Your task to perform on an android device: change timer sound Image 0: 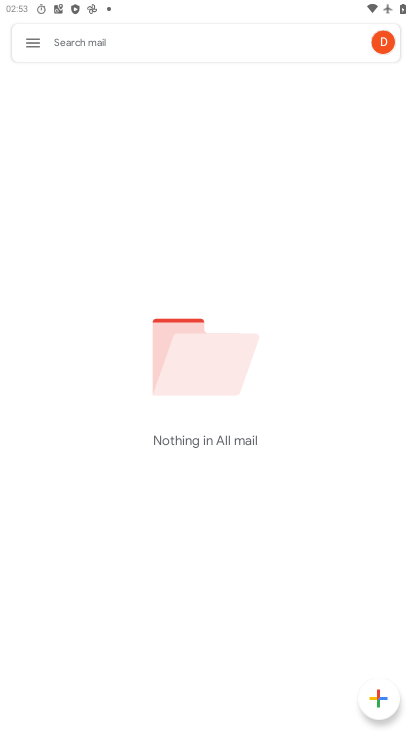
Step 0: press home button
Your task to perform on an android device: change timer sound Image 1: 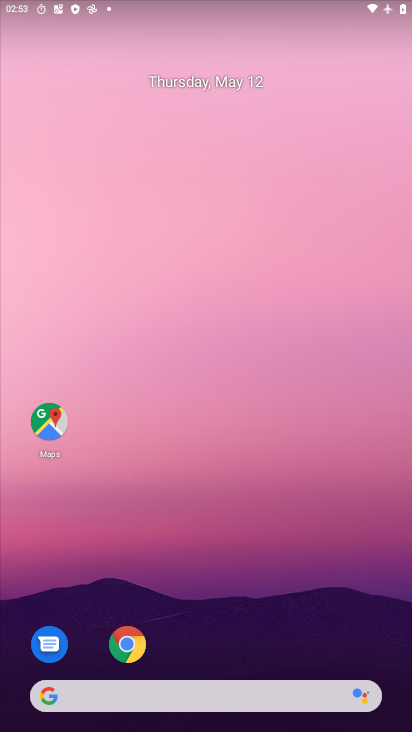
Step 1: drag from (244, 478) to (222, 97)
Your task to perform on an android device: change timer sound Image 2: 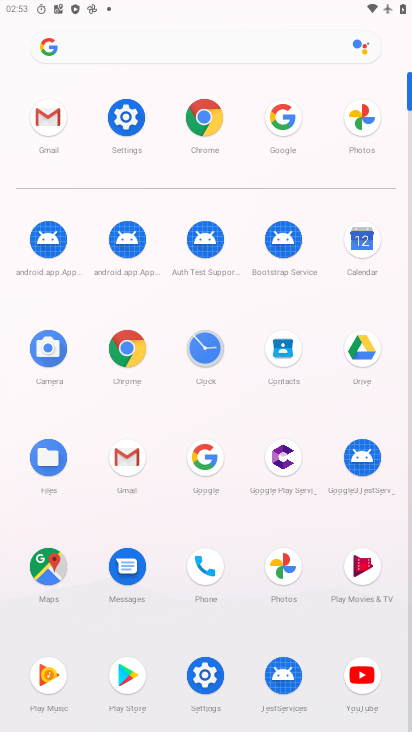
Step 2: click (130, 123)
Your task to perform on an android device: change timer sound Image 3: 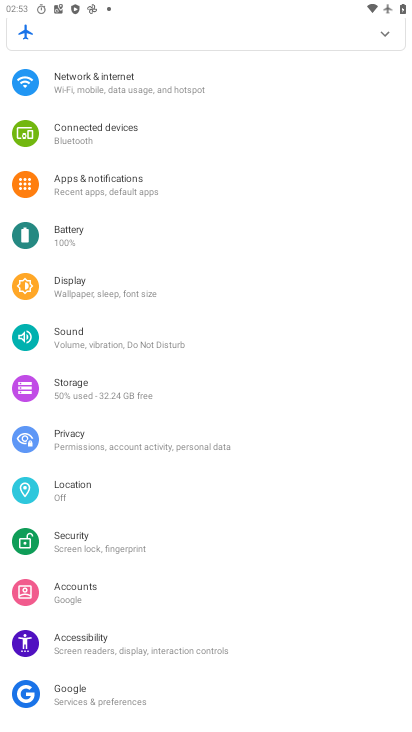
Step 3: press home button
Your task to perform on an android device: change timer sound Image 4: 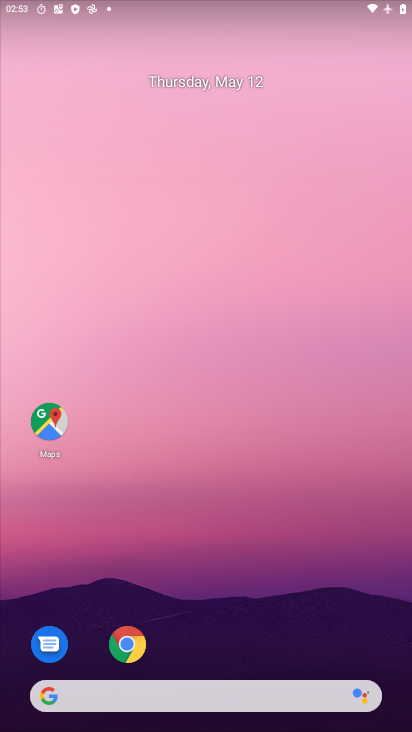
Step 4: drag from (282, 324) to (273, 136)
Your task to perform on an android device: change timer sound Image 5: 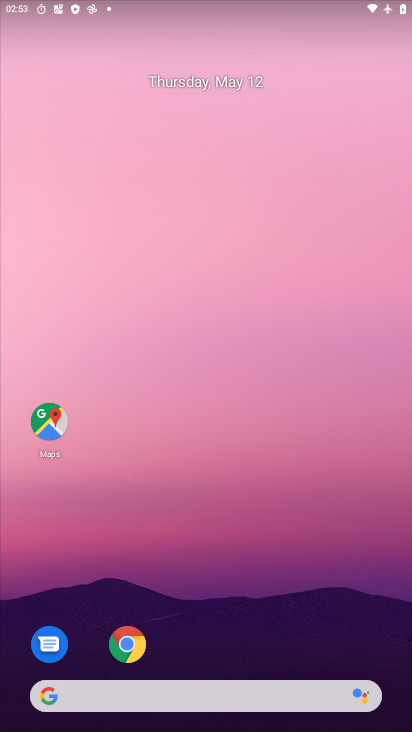
Step 5: drag from (179, 488) to (167, 58)
Your task to perform on an android device: change timer sound Image 6: 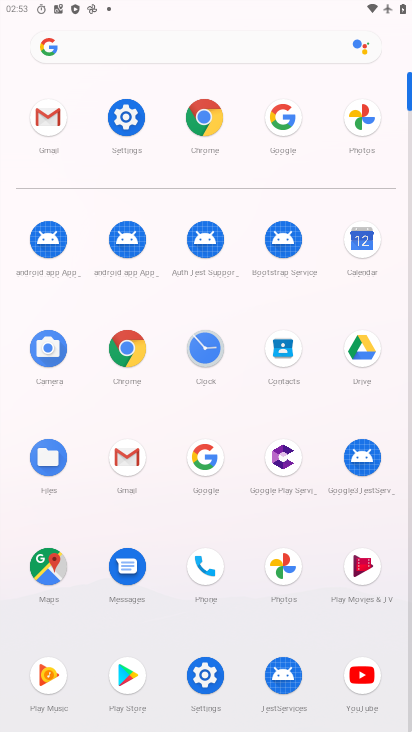
Step 6: click (206, 350)
Your task to perform on an android device: change timer sound Image 7: 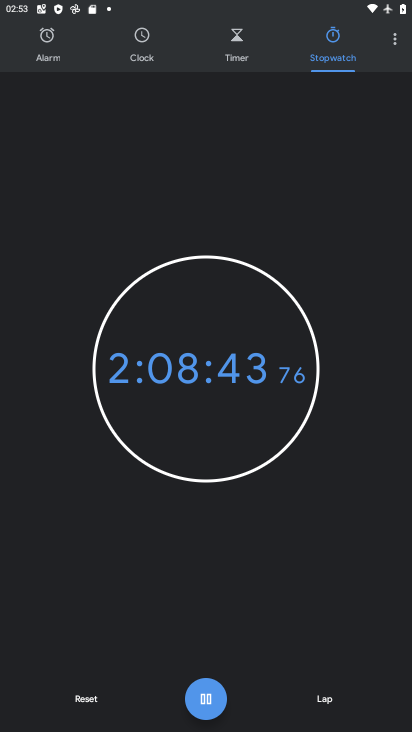
Step 7: click (391, 36)
Your task to perform on an android device: change timer sound Image 8: 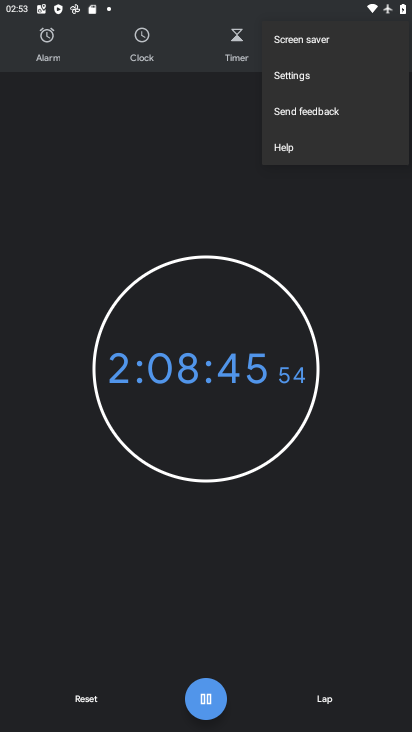
Step 8: click (332, 80)
Your task to perform on an android device: change timer sound Image 9: 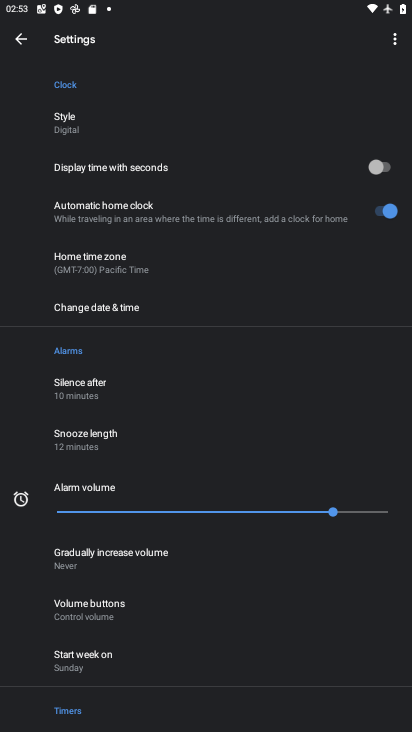
Step 9: drag from (195, 598) to (226, 267)
Your task to perform on an android device: change timer sound Image 10: 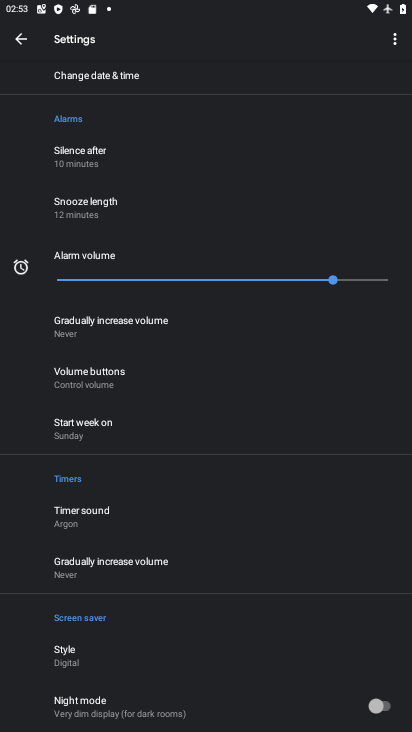
Step 10: click (120, 510)
Your task to perform on an android device: change timer sound Image 11: 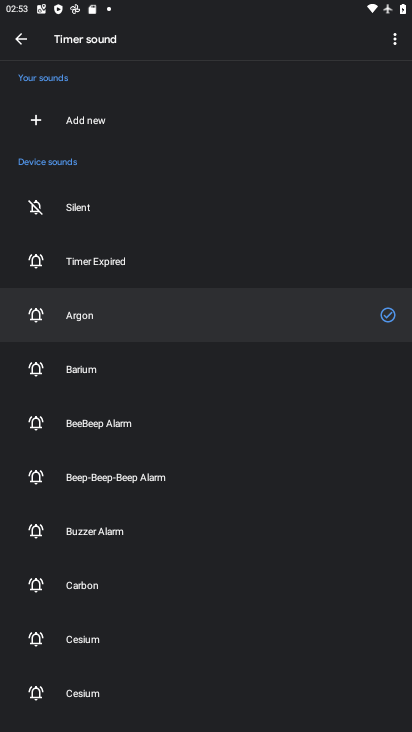
Step 11: click (249, 369)
Your task to perform on an android device: change timer sound Image 12: 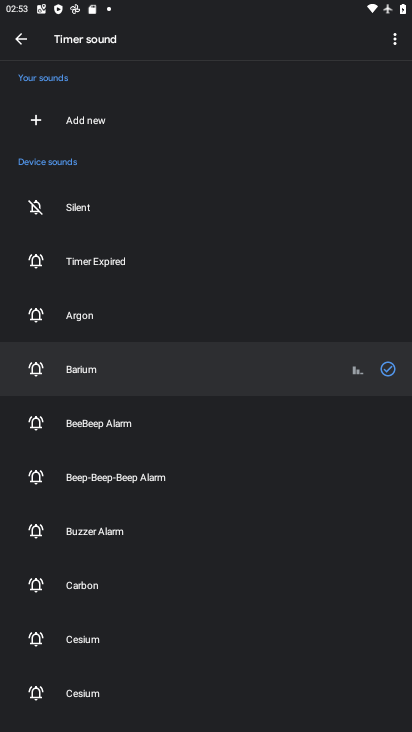
Step 12: task complete